Your task to perform on an android device: Open the Play Movies app and select the watchlist tab. Image 0: 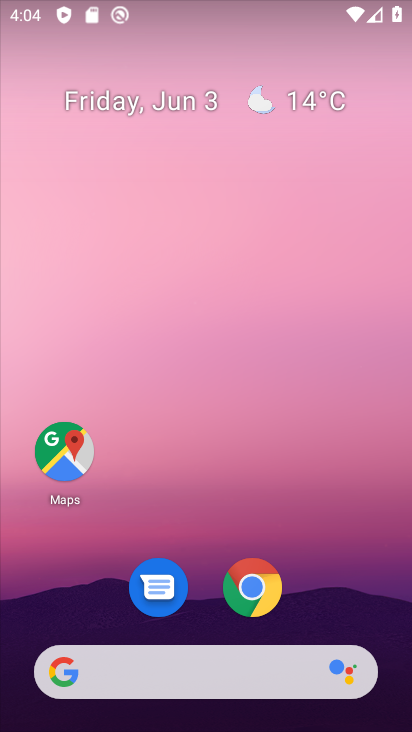
Step 0: drag from (197, 646) to (187, 321)
Your task to perform on an android device: Open the Play Movies app and select the watchlist tab. Image 1: 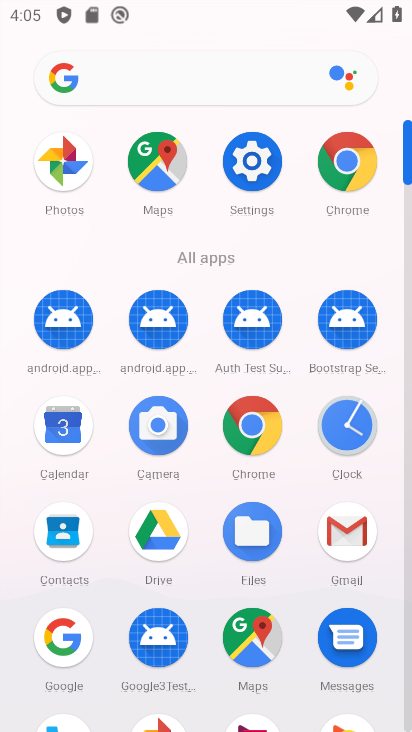
Step 1: drag from (183, 593) to (165, 332)
Your task to perform on an android device: Open the Play Movies app and select the watchlist tab. Image 2: 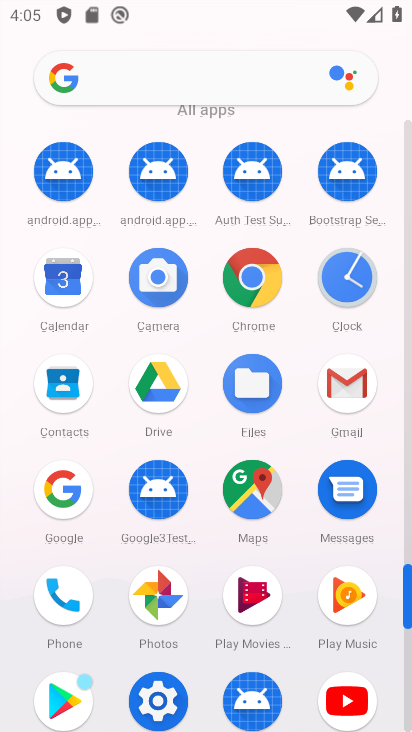
Step 2: click (77, 597)
Your task to perform on an android device: Open the Play Movies app and select the watchlist tab. Image 3: 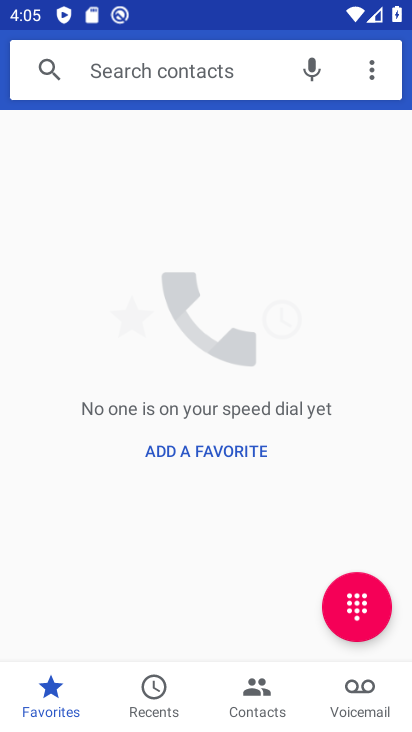
Step 3: press home button
Your task to perform on an android device: Open the Play Movies app and select the watchlist tab. Image 4: 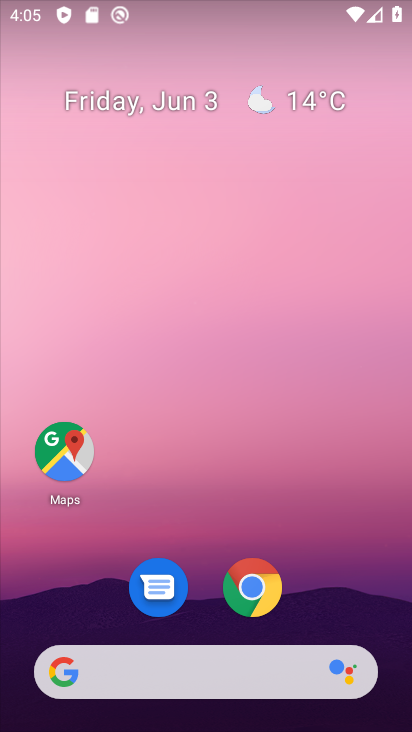
Step 4: drag from (282, 642) to (252, 273)
Your task to perform on an android device: Open the Play Movies app and select the watchlist tab. Image 5: 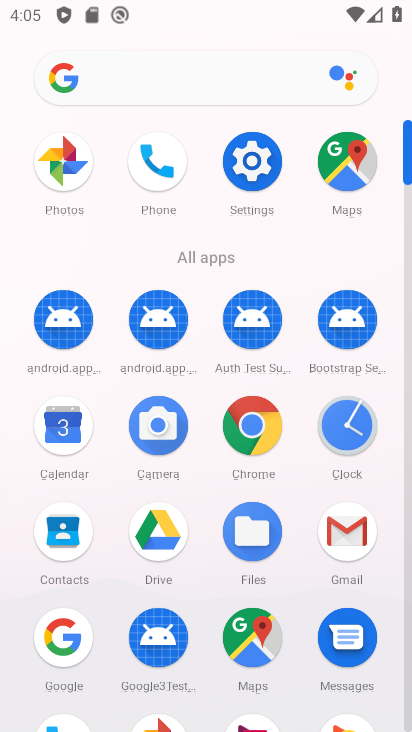
Step 5: drag from (298, 652) to (262, 392)
Your task to perform on an android device: Open the Play Movies app and select the watchlist tab. Image 6: 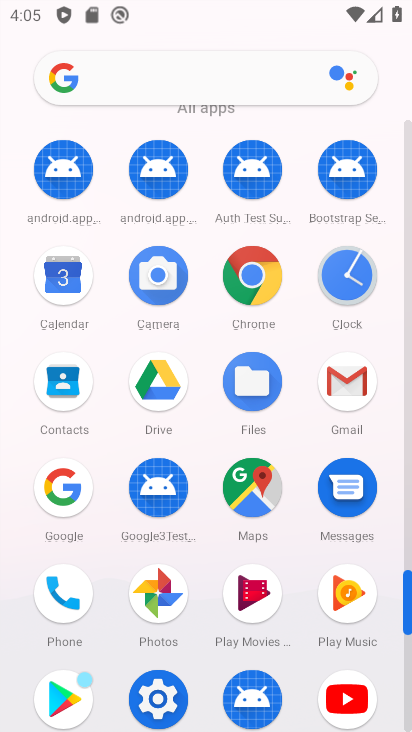
Step 6: click (246, 613)
Your task to perform on an android device: Open the Play Movies app and select the watchlist tab. Image 7: 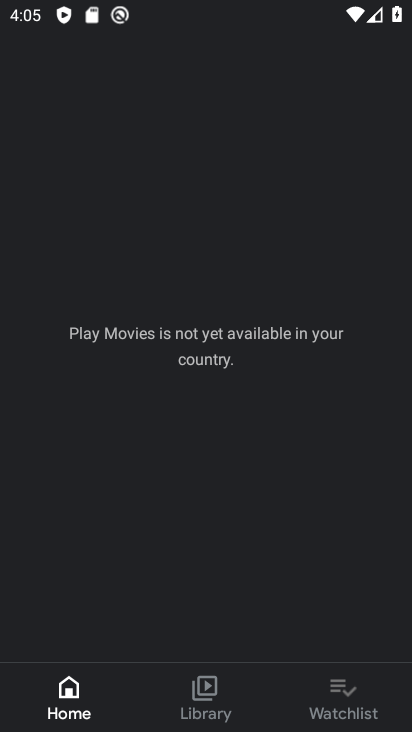
Step 7: click (285, 702)
Your task to perform on an android device: Open the Play Movies app and select the watchlist tab. Image 8: 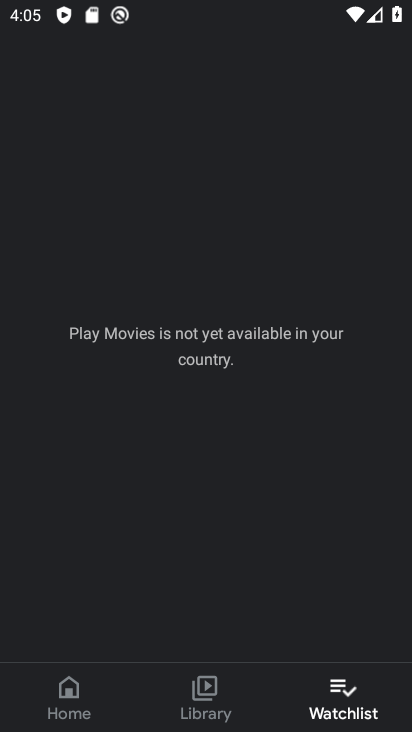
Step 8: task complete